Your task to perform on an android device: turn off notifications settings in the gmail app Image 0: 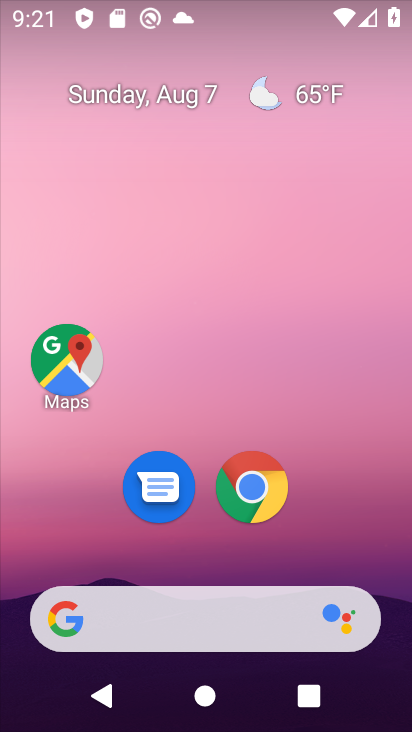
Step 0: press home button
Your task to perform on an android device: turn off notifications settings in the gmail app Image 1: 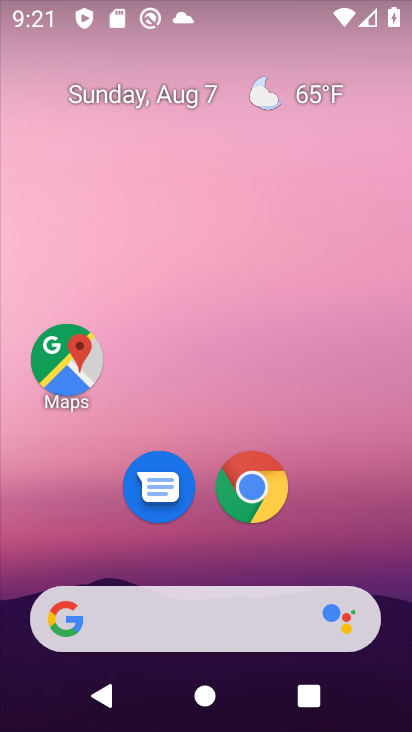
Step 1: drag from (394, 700) to (342, 15)
Your task to perform on an android device: turn off notifications settings in the gmail app Image 2: 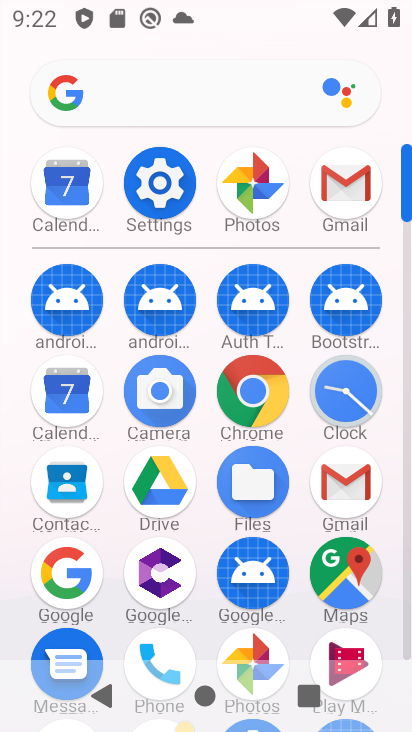
Step 2: click (345, 481)
Your task to perform on an android device: turn off notifications settings in the gmail app Image 3: 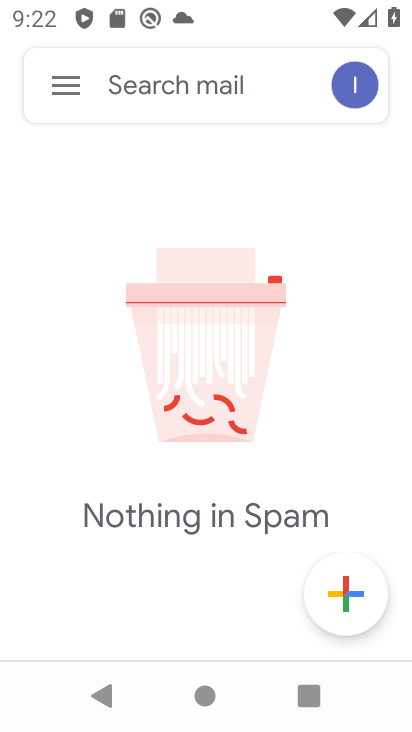
Step 3: click (53, 86)
Your task to perform on an android device: turn off notifications settings in the gmail app Image 4: 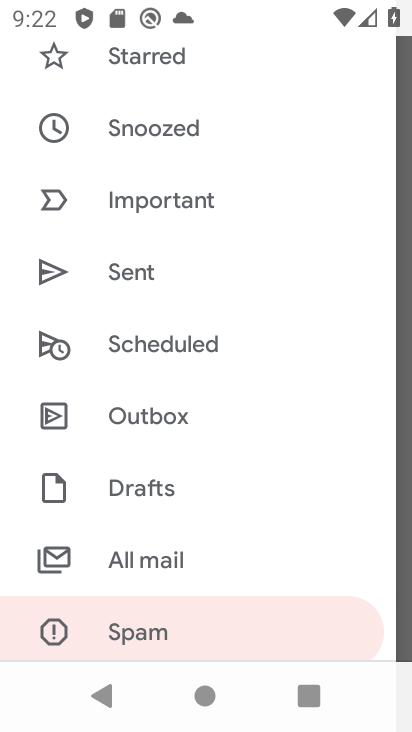
Step 4: drag from (264, 565) to (308, 136)
Your task to perform on an android device: turn off notifications settings in the gmail app Image 5: 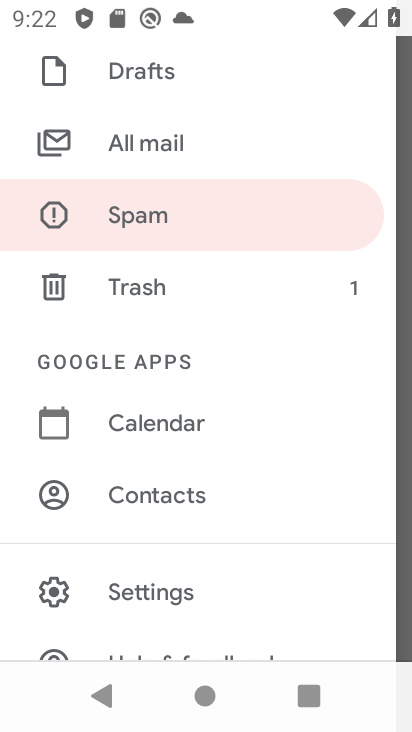
Step 5: click (126, 584)
Your task to perform on an android device: turn off notifications settings in the gmail app Image 6: 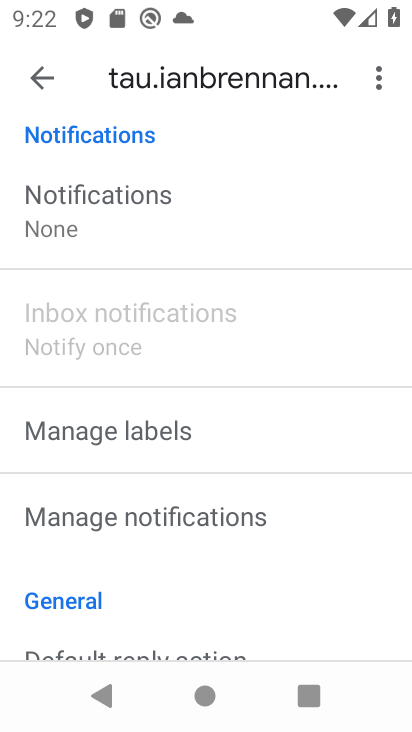
Step 6: click (89, 186)
Your task to perform on an android device: turn off notifications settings in the gmail app Image 7: 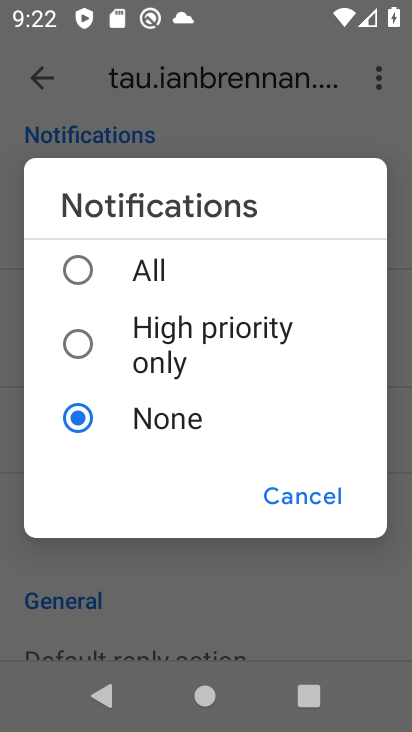
Step 7: task complete